Your task to perform on an android device: Open internet settings Image 0: 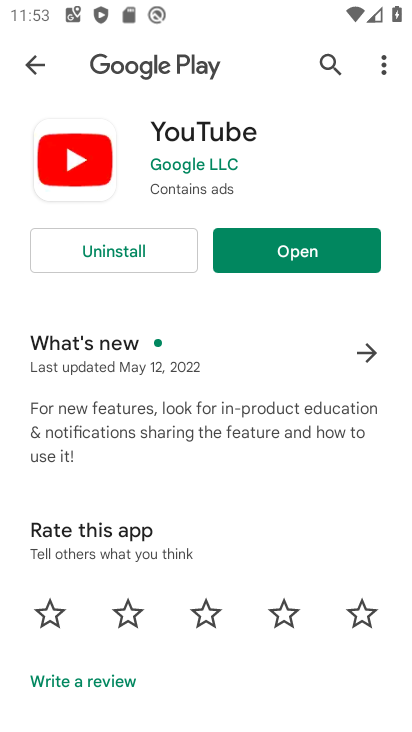
Step 0: press home button
Your task to perform on an android device: Open internet settings Image 1: 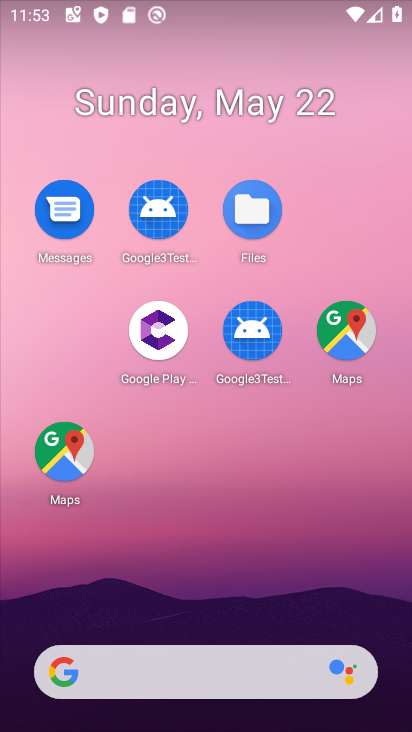
Step 1: drag from (227, 614) to (20, 33)
Your task to perform on an android device: Open internet settings Image 2: 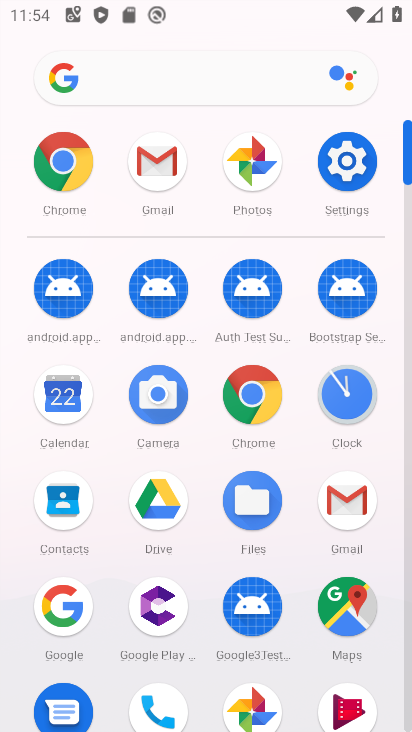
Step 2: click (328, 156)
Your task to perform on an android device: Open internet settings Image 3: 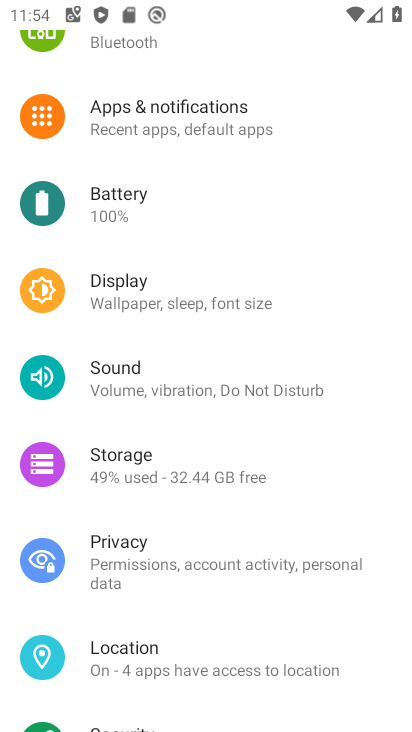
Step 3: drag from (226, 189) to (262, 550)
Your task to perform on an android device: Open internet settings Image 4: 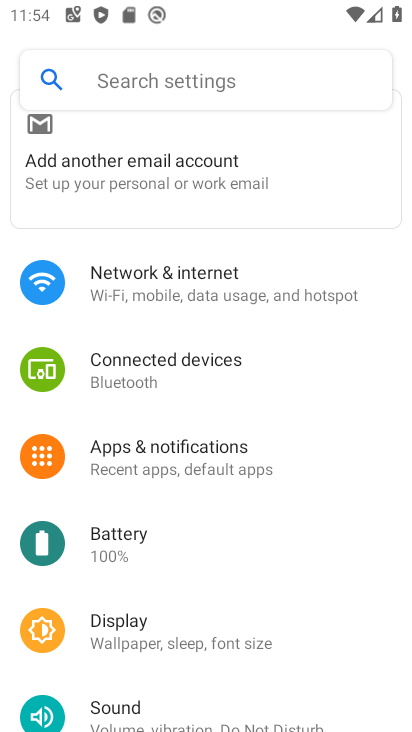
Step 4: click (174, 293)
Your task to perform on an android device: Open internet settings Image 5: 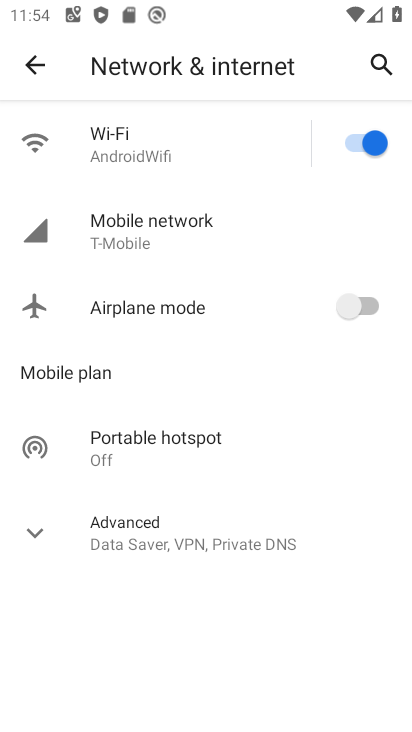
Step 5: click (120, 228)
Your task to perform on an android device: Open internet settings Image 6: 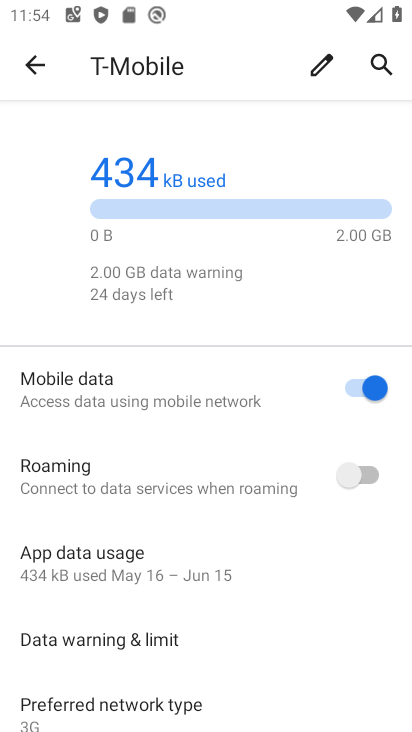
Step 6: task complete